Your task to perform on an android device: Go to privacy settings Image 0: 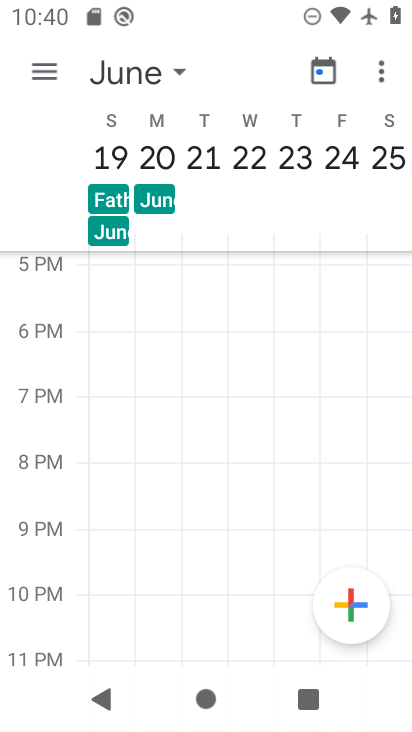
Step 0: press back button
Your task to perform on an android device: Go to privacy settings Image 1: 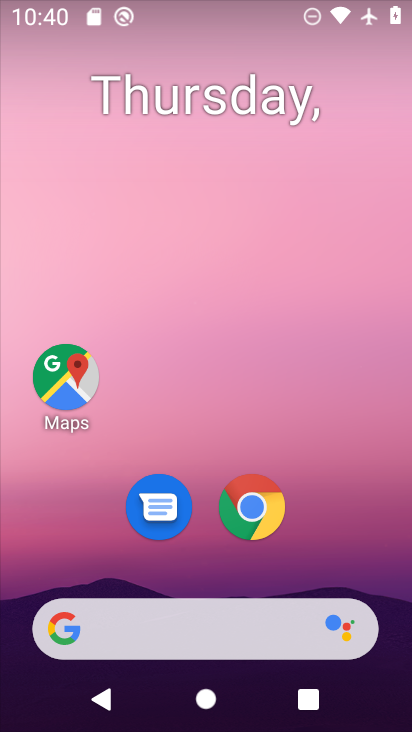
Step 1: drag from (341, 502) to (234, 11)
Your task to perform on an android device: Go to privacy settings Image 2: 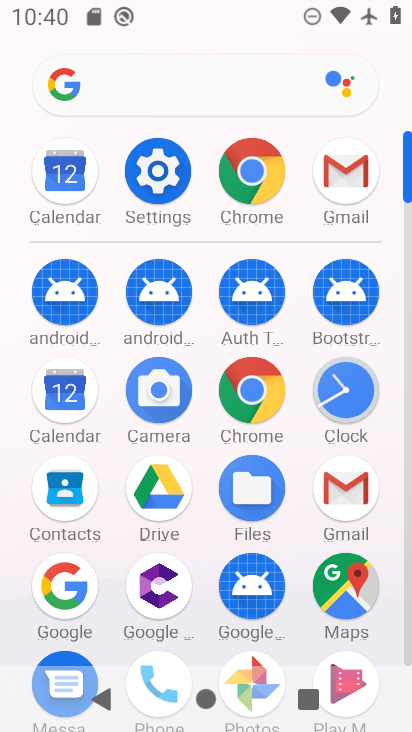
Step 2: click (163, 163)
Your task to perform on an android device: Go to privacy settings Image 3: 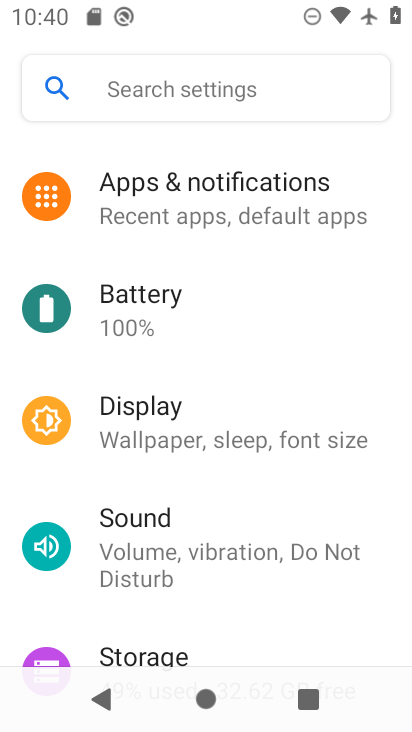
Step 3: drag from (266, 548) to (314, 213)
Your task to perform on an android device: Go to privacy settings Image 4: 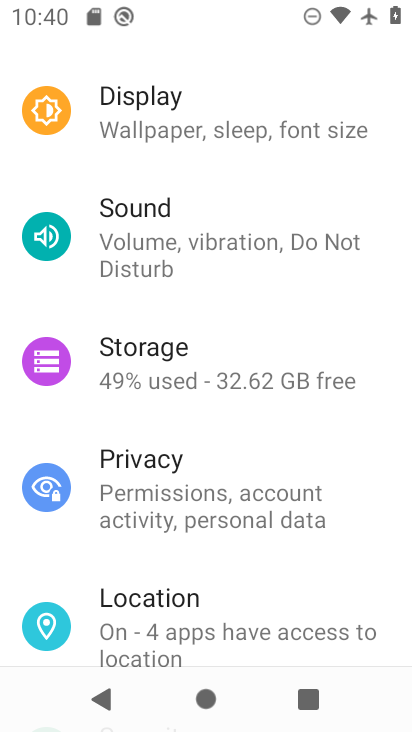
Step 4: drag from (302, 519) to (290, 188)
Your task to perform on an android device: Go to privacy settings Image 5: 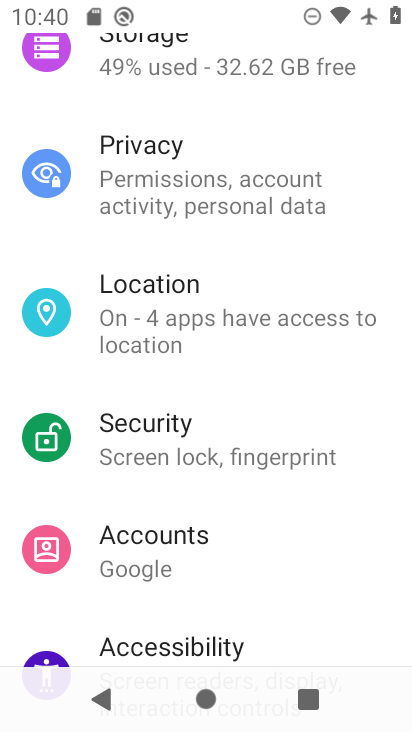
Step 5: drag from (314, 549) to (315, 169)
Your task to perform on an android device: Go to privacy settings Image 6: 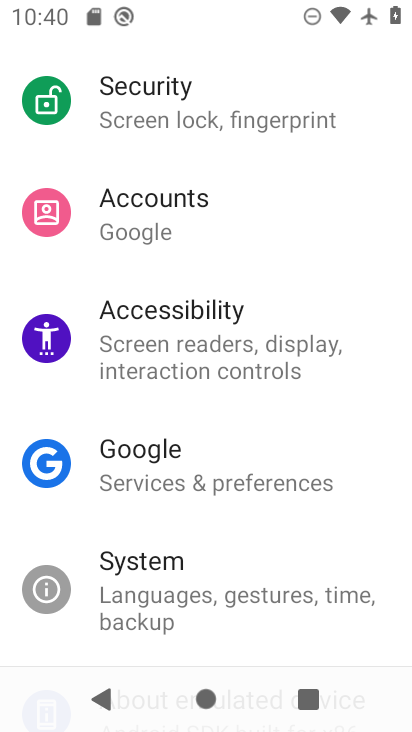
Step 6: drag from (274, 545) to (288, 176)
Your task to perform on an android device: Go to privacy settings Image 7: 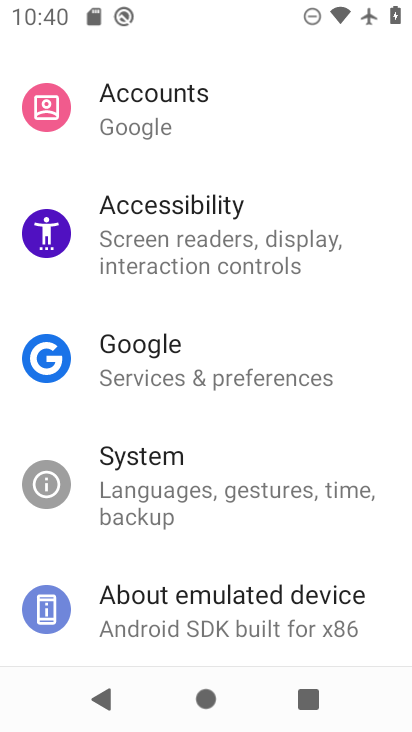
Step 7: drag from (251, 570) to (257, 181)
Your task to perform on an android device: Go to privacy settings Image 8: 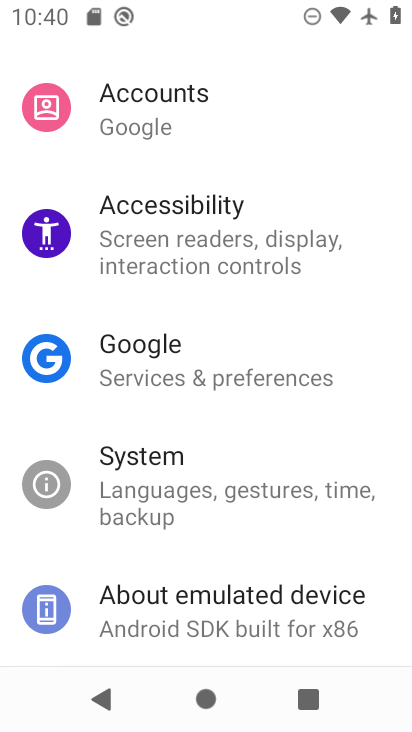
Step 8: drag from (286, 250) to (288, 572)
Your task to perform on an android device: Go to privacy settings Image 9: 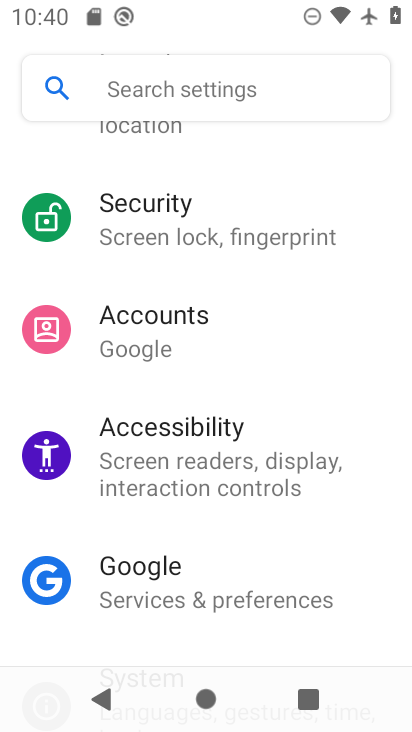
Step 9: drag from (321, 223) to (303, 561)
Your task to perform on an android device: Go to privacy settings Image 10: 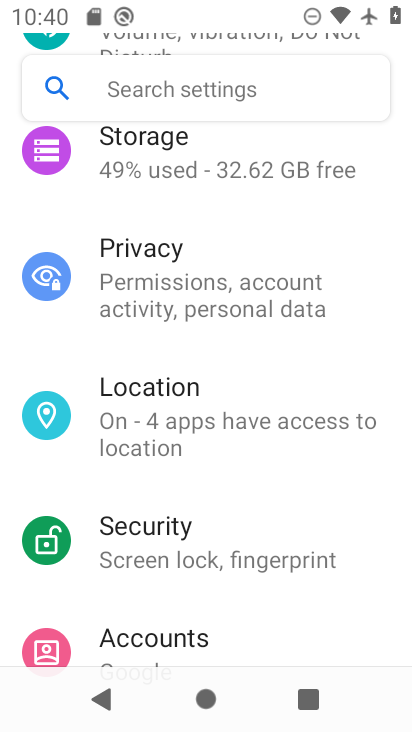
Step 10: drag from (307, 174) to (275, 573)
Your task to perform on an android device: Go to privacy settings Image 11: 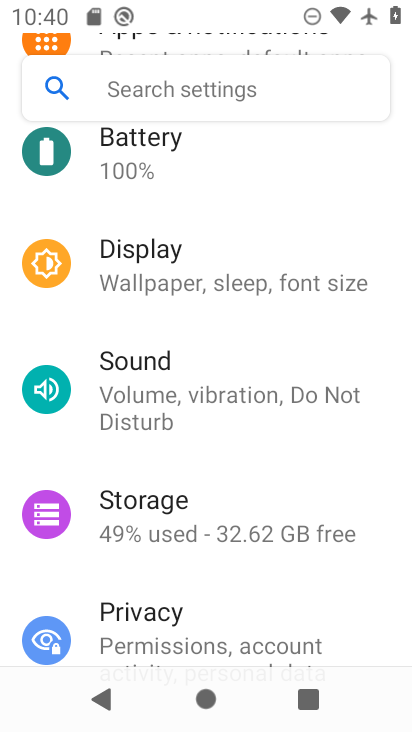
Step 11: drag from (289, 182) to (280, 475)
Your task to perform on an android device: Go to privacy settings Image 12: 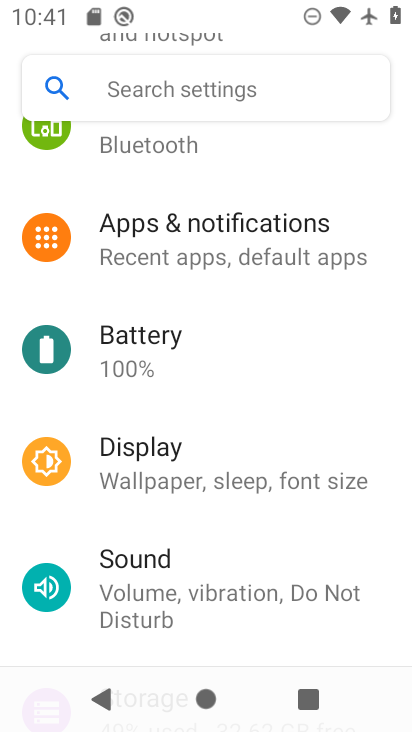
Step 12: drag from (280, 229) to (282, 548)
Your task to perform on an android device: Go to privacy settings Image 13: 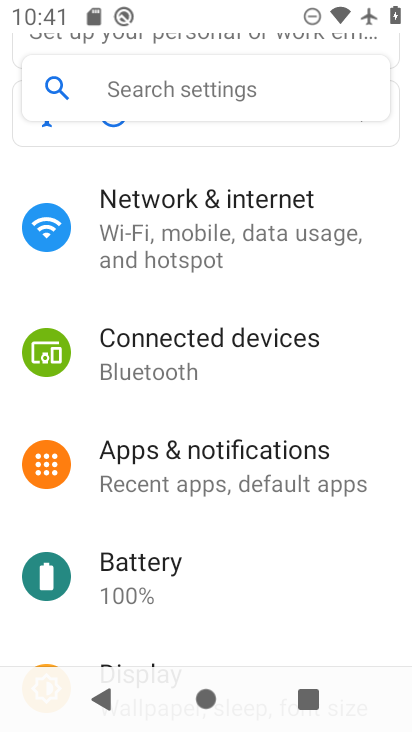
Step 13: drag from (288, 517) to (287, 183)
Your task to perform on an android device: Go to privacy settings Image 14: 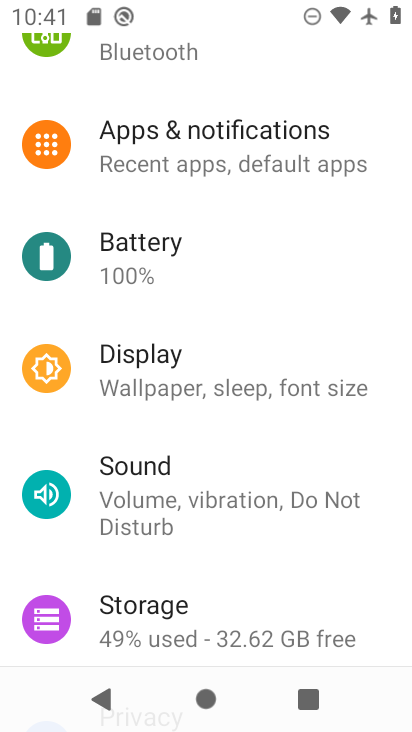
Step 14: drag from (266, 549) to (275, 161)
Your task to perform on an android device: Go to privacy settings Image 15: 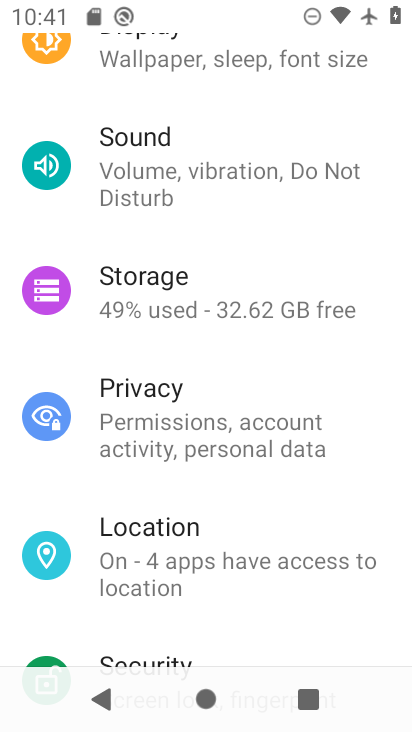
Step 15: press back button
Your task to perform on an android device: Go to privacy settings Image 16: 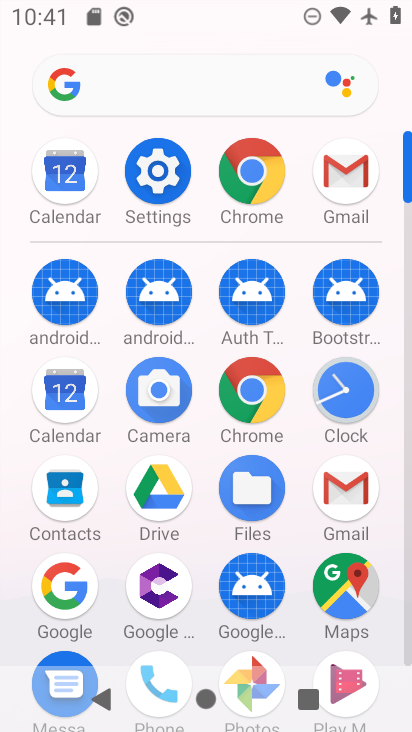
Step 16: click (248, 378)
Your task to perform on an android device: Go to privacy settings Image 17: 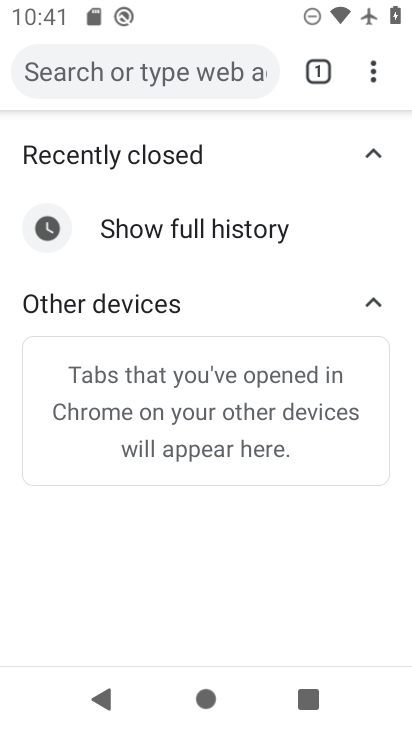
Step 17: drag from (376, 72) to (148, 494)
Your task to perform on an android device: Go to privacy settings Image 18: 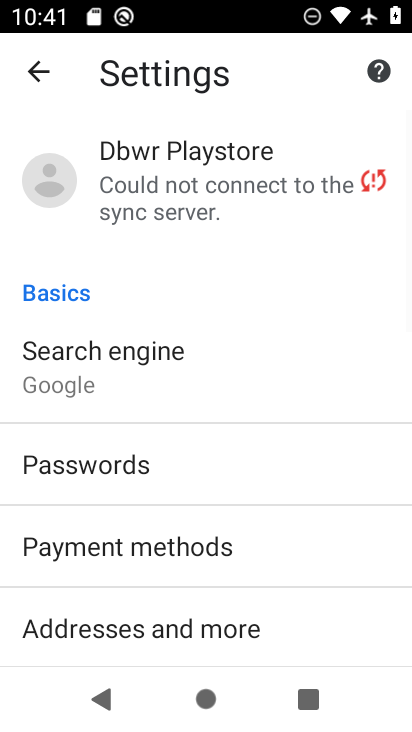
Step 18: drag from (245, 518) to (237, 171)
Your task to perform on an android device: Go to privacy settings Image 19: 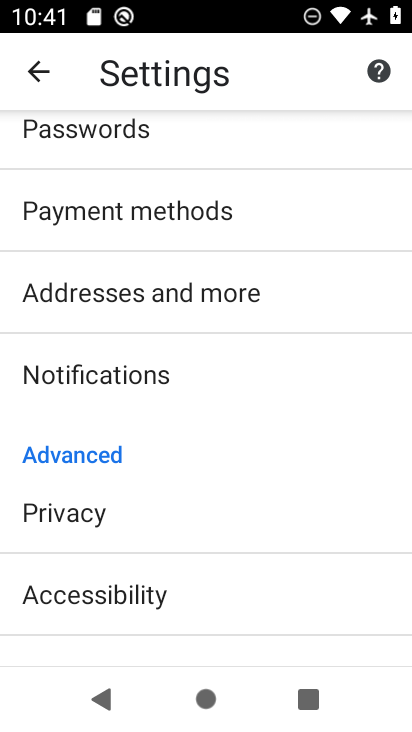
Step 19: click (72, 517)
Your task to perform on an android device: Go to privacy settings Image 20: 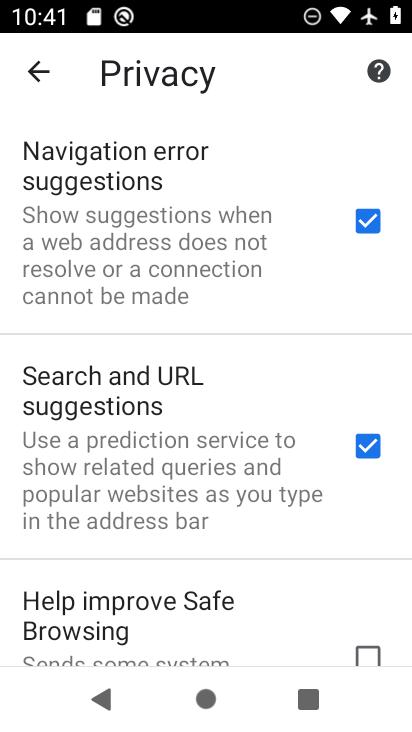
Step 20: task complete